Your task to perform on an android device: open a bookmark in the chrome app Image 0: 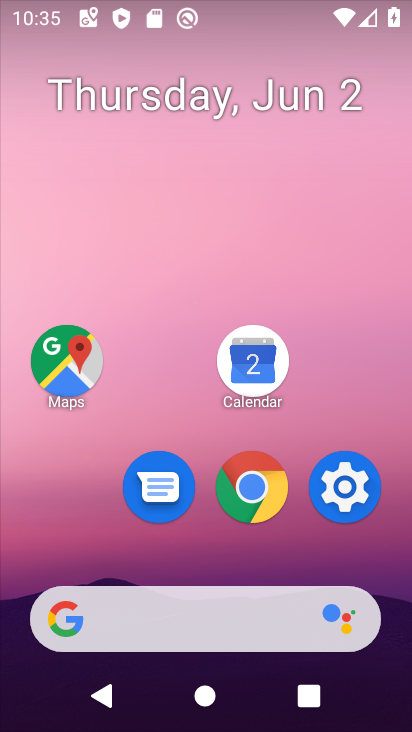
Step 0: press home button
Your task to perform on an android device: open a bookmark in the chrome app Image 1: 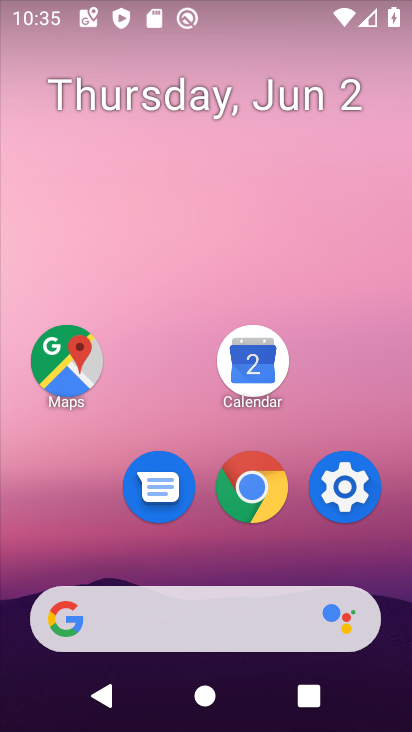
Step 1: click (277, 469)
Your task to perform on an android device: open a bookmark in the chrome app Image 2: 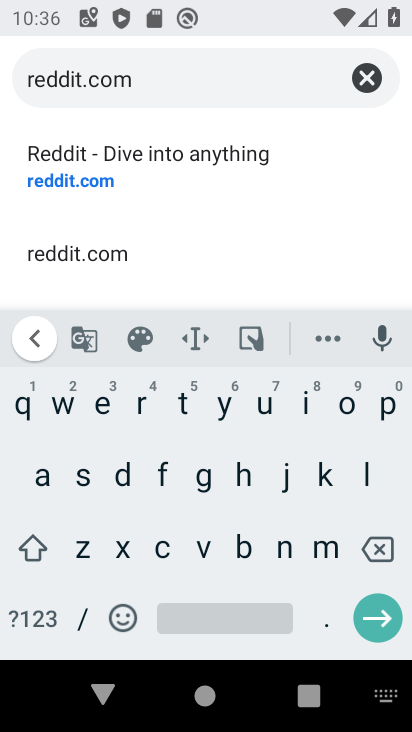
Step 2: press back button
Your task to perform on an android device: open a bookmark in the chrome app Image 3: 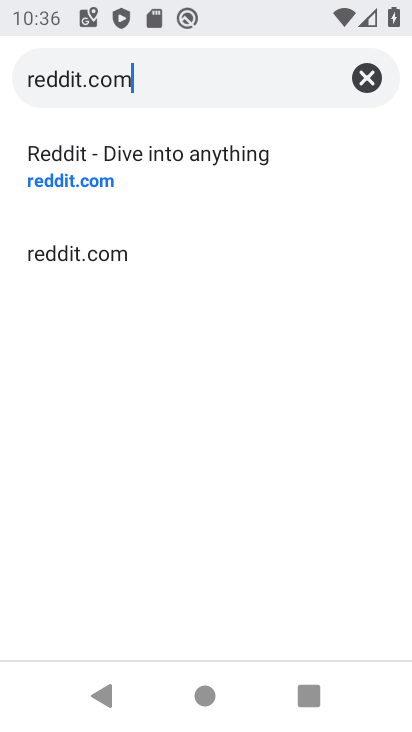
Step 3: press back button
Your task to perform on an android device: open a bookmark in the chrome app Image 4: 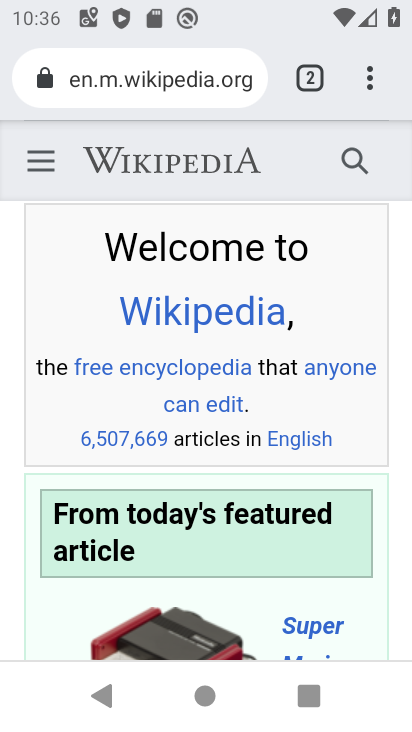
Step 4: click (378, 90)
Your task to perform on an android device: open a bookmark in the chrome app Image 5: 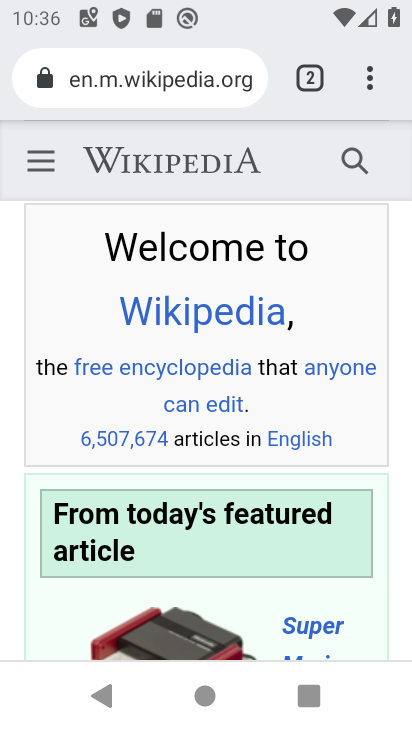
Step 5: click (371, 92)
Your task to perform on an android device: open a bookmark in the chrome app Image 6: 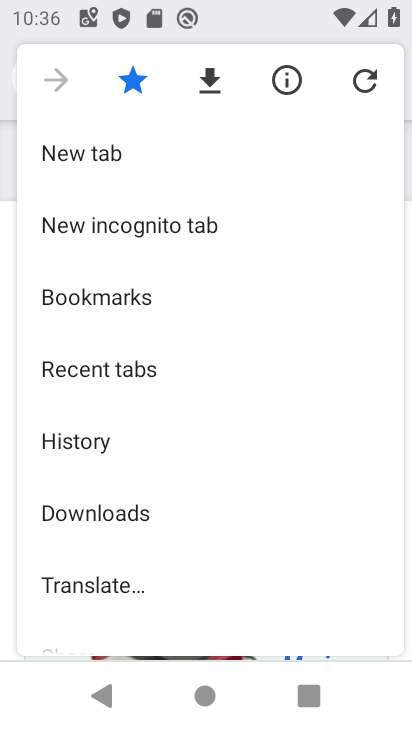
Step 6: click (121, 285)
Your task to perform on an android device: open a bookmark in the chrome app Image 7: 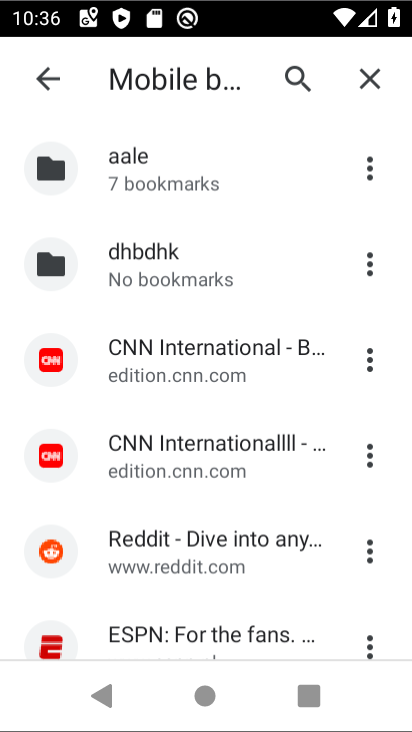
Step 7: click (121, 285)
Your task to perform on an android device: open a bookmark in the chrome app Image 8: 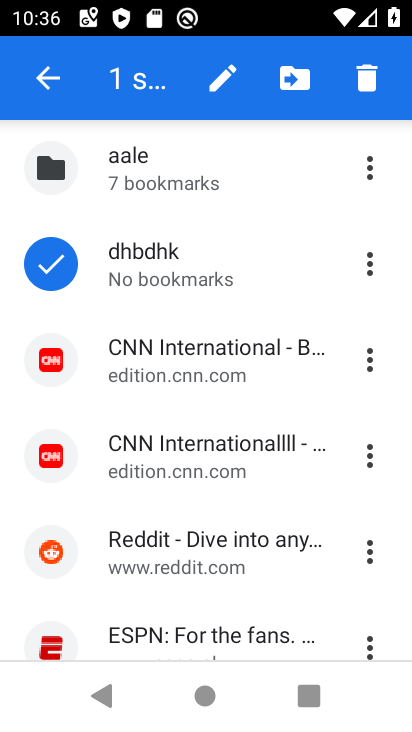
Step 8: click (37, 73)
Your task to perform on an android device: open a bookmark in the chrome app Image 9: 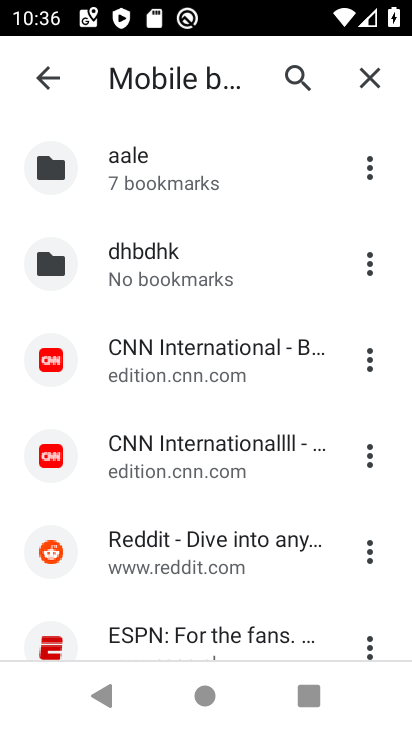
Step 9: task complete